Your task to perform on an android device: turn off smart reply in the gmail app Image 0: 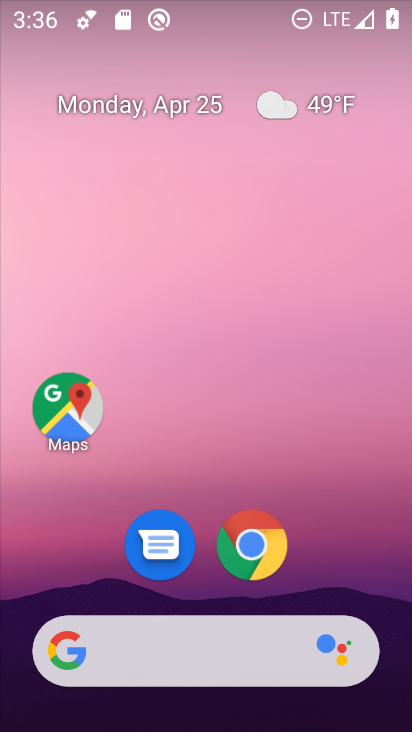
Step 0: drag from (325, 563) to (170, 96)
Your task to perform on an android device: turn off smart reply in the gmail app Image 1: 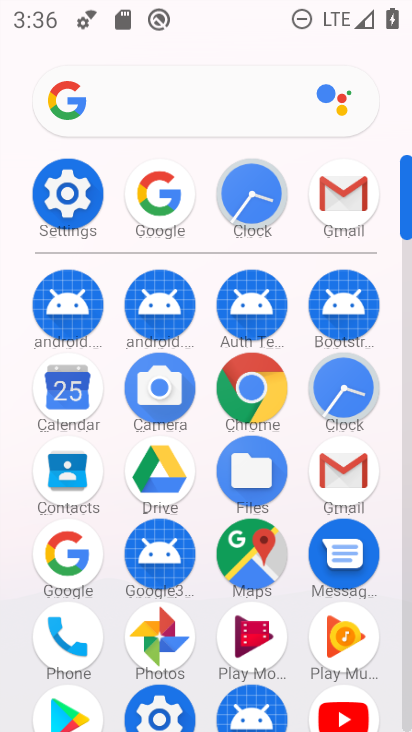
Step 1: click (339, 210)
Your task to perform on an android device: turn off smart reply in the gmail app Image 2: 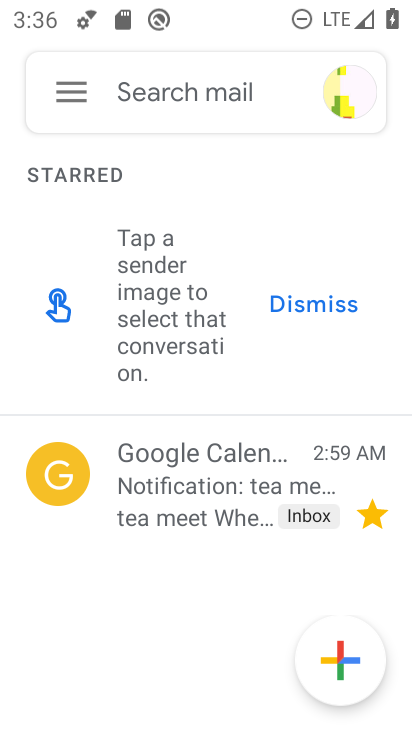
Step 2: click (68, 96)
Your task to perform on an android device: turn off smart reply in the gmail app Image 3: 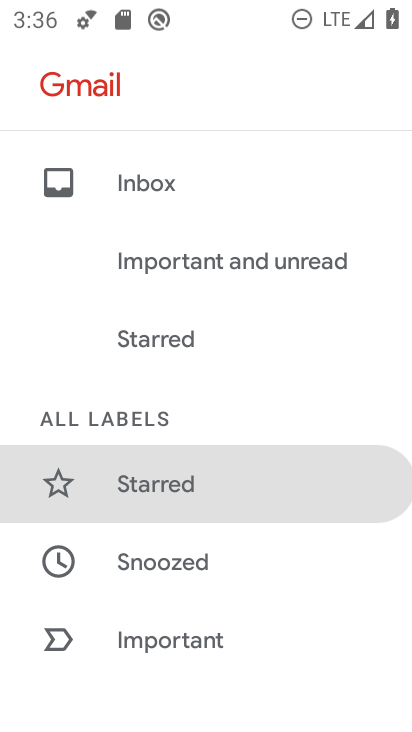
Step 3: drag from (282, 606) to (195, 86)
Your task to perform on an android device: turn off smart reply in the gmail app Image 4: 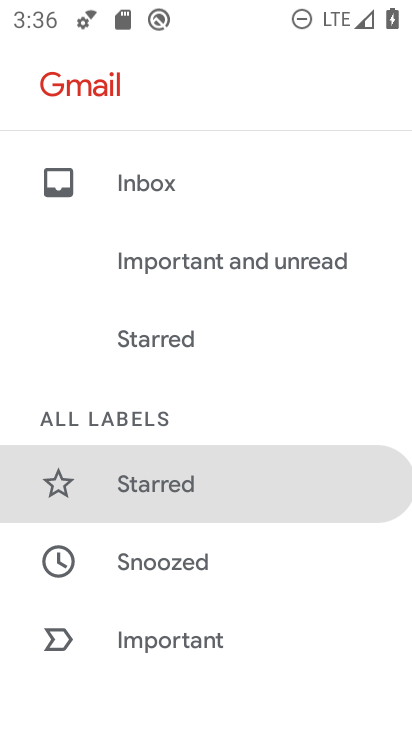
Step 4: drag from (211, 621) to (238, 11)
Your task to perform on an android device: turn off smart reply in the gmail app Image 5: 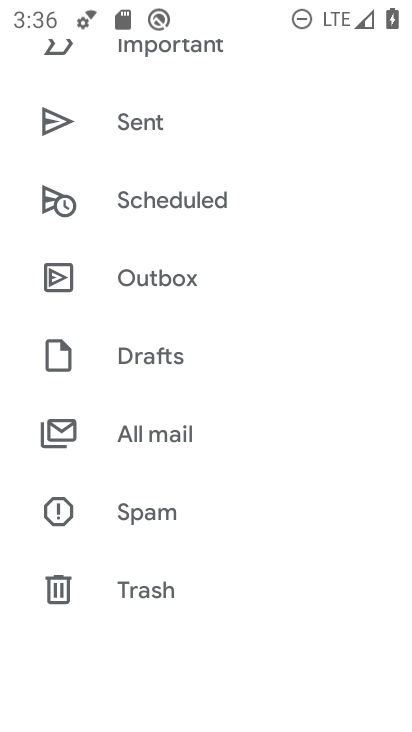
Step 5: drag from (250, 629) to (228, 173)
Your task to perform on an android device: turn off smart reply in the gmail app Image 6: 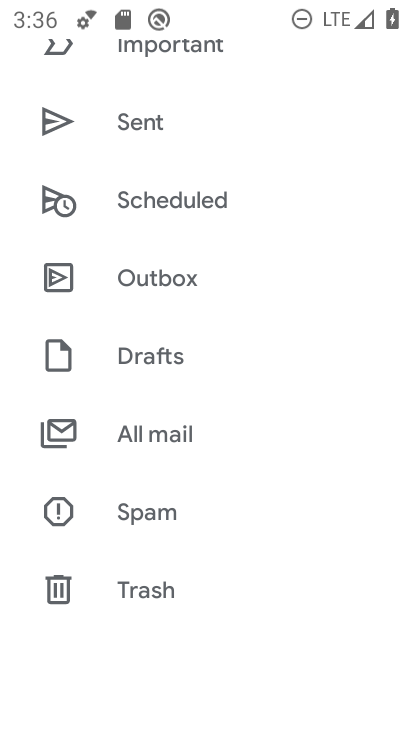
Step 6: drag from (208, 565) to (141, 130)
Your task to perform on an android device: turn off smart reply in the gmail app Image 7: 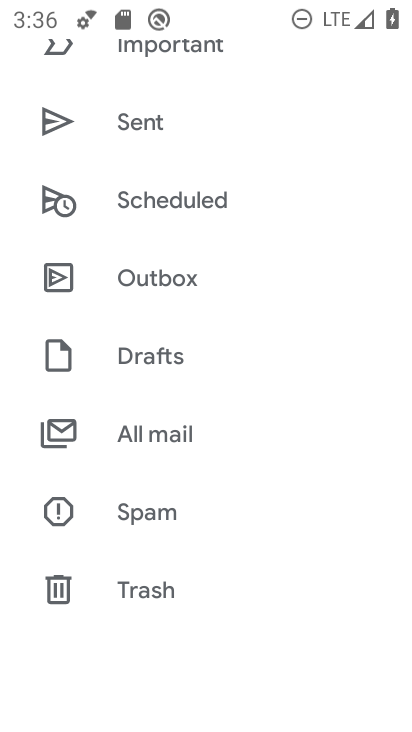
Step 7: drag from (140, 549) to (277, 28)
Your task to perform on an android device: turn off smart reply in the gmail app Image 8: 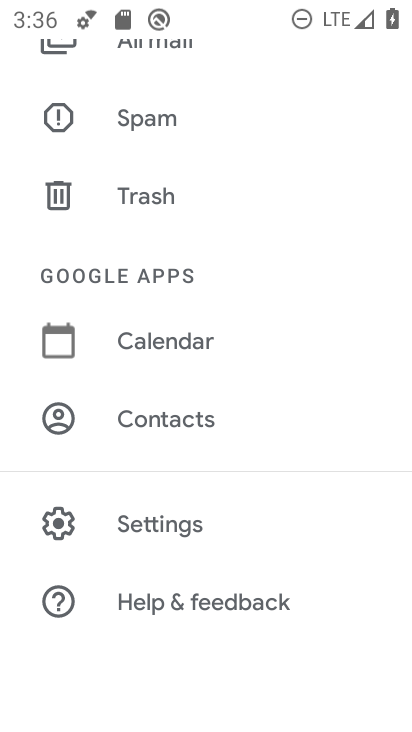
Step 8: click (186, 528)
Your task to perform on an android device: turn off smart reply in the gmail app Image 9: 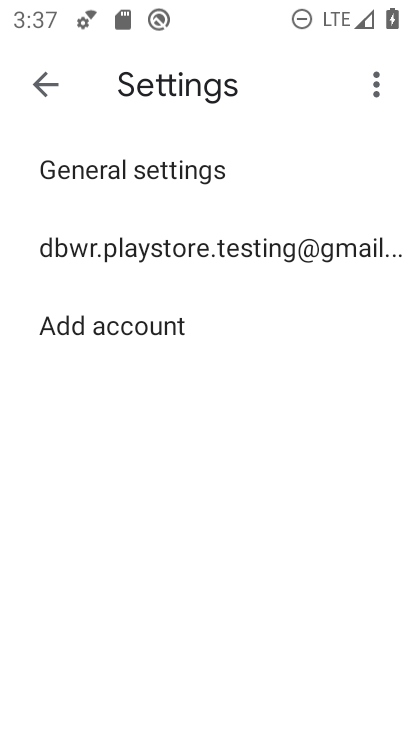
Step 9: click (170, 242)
Your task to perform on an android device: turn off smart reply in the gmail app Image 10: 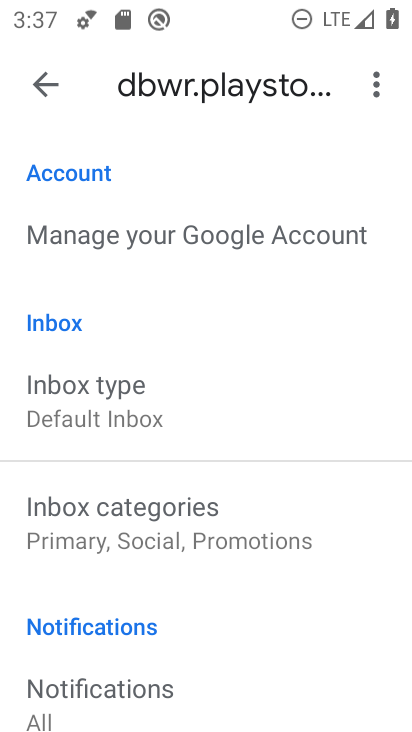
Step 10: drag from (218, 662) to (193, 56)
Your task to perform on an android device: turn off smart reply in the gmail app Image 11: 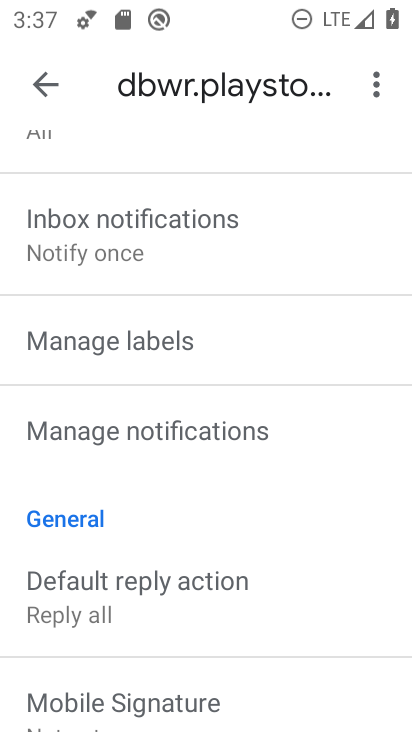
Step 11: drag from (175, 651) to (245, 164)
Your task to perform on an android device: turn off smart reply in the gmail app Image 12: 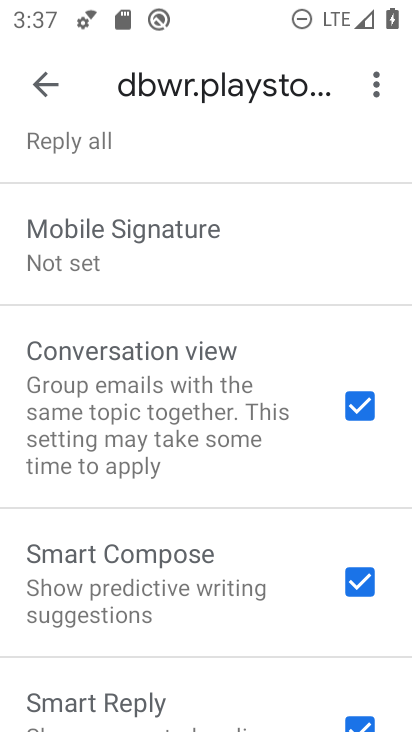
Step 12: click (359, 719)
Your task to perform on an android device: turn off smart reply in the gmail app Image 13: 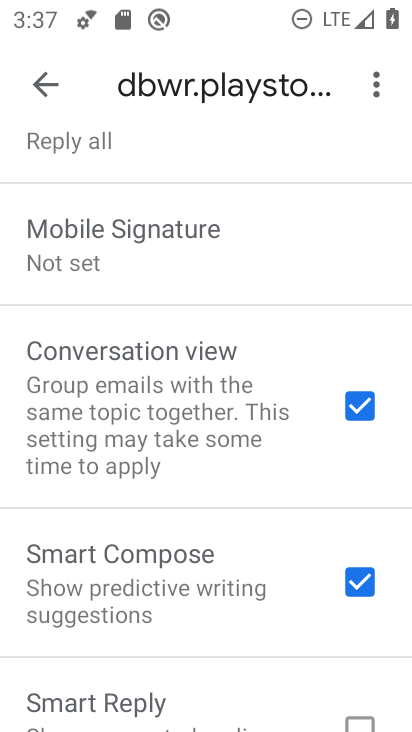
Step 13: task complete